Your task to perform on an android device: Add corsair k70 to the cart on walmart Image 0: 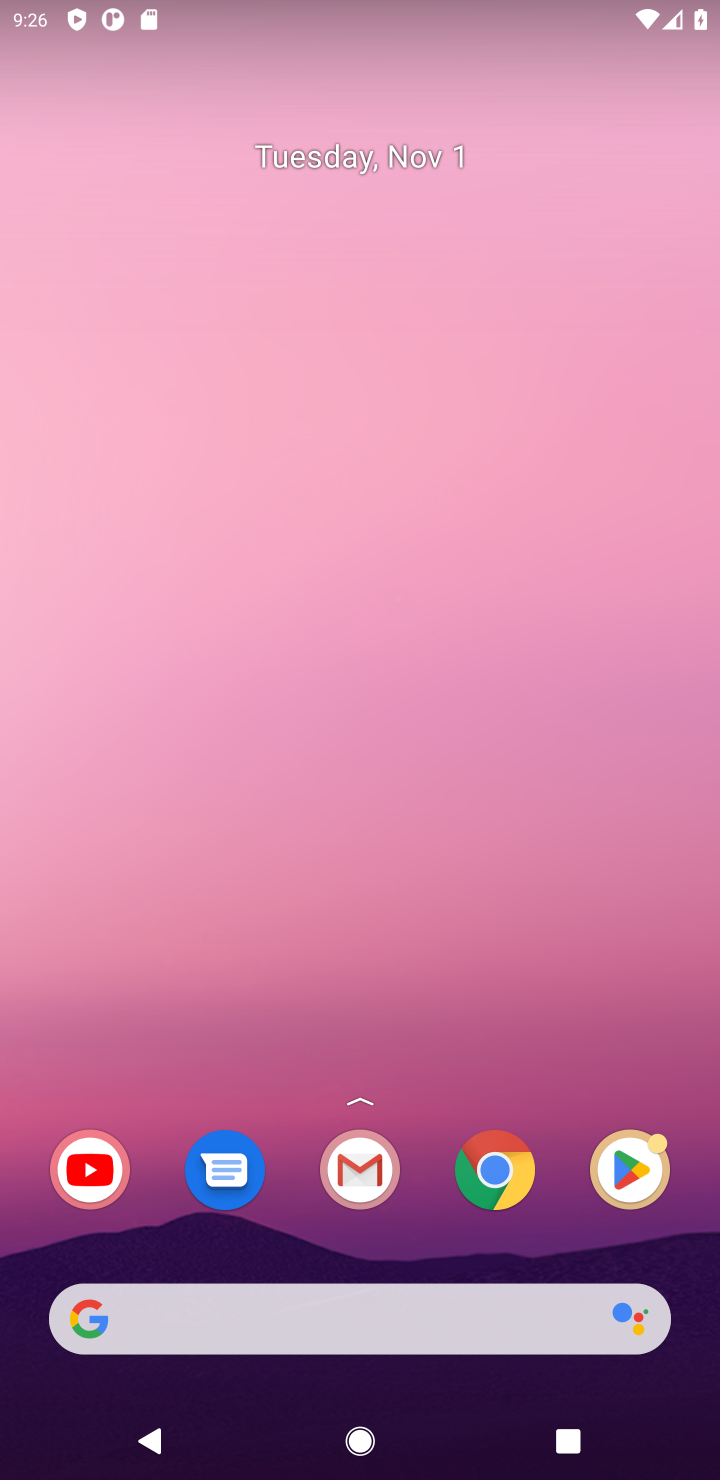
Step 0: press home button
Your task to perform on an android device: Add corsair k70 to the cart on walmart Image 1: 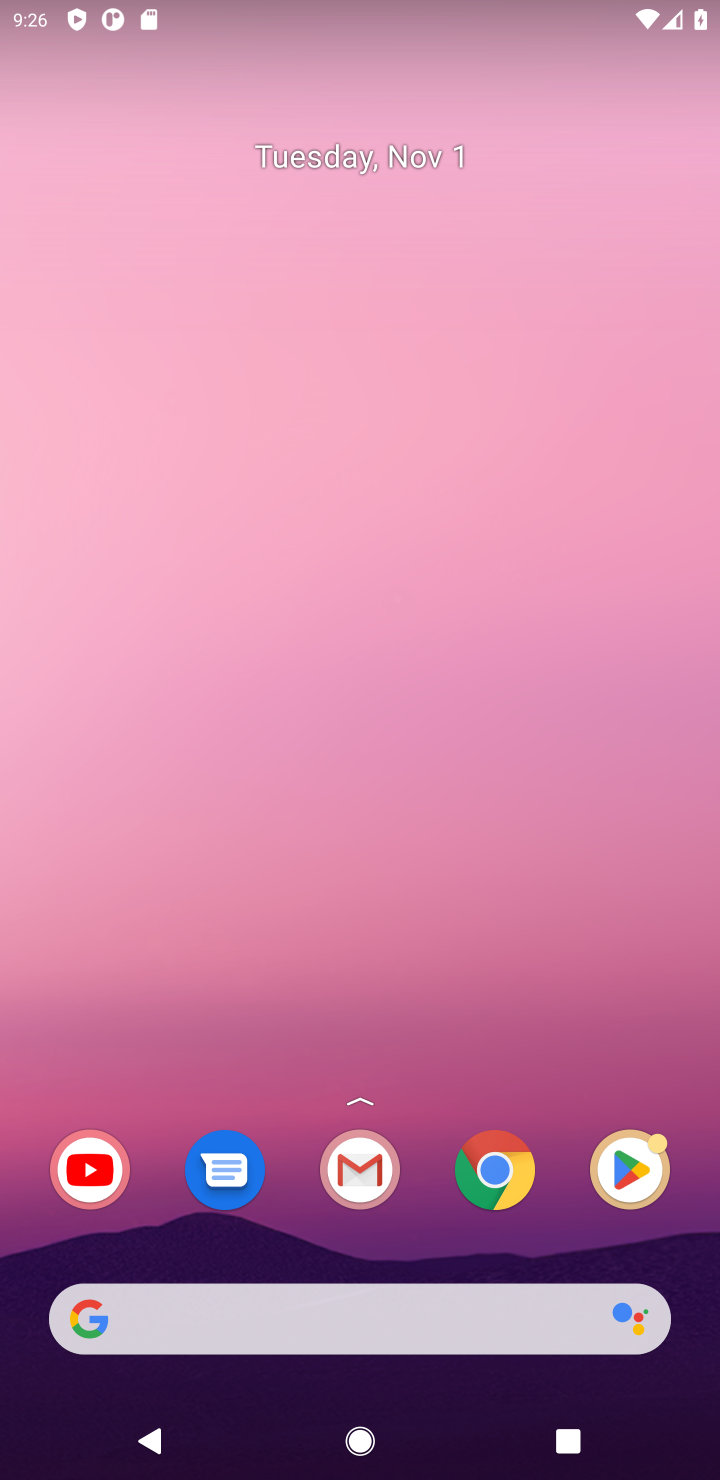
Step 1: drag from (414, 1105) to (484, 123)
Your task to perform on an android device: Add corsair k70 to the cart on walmart Image 2: 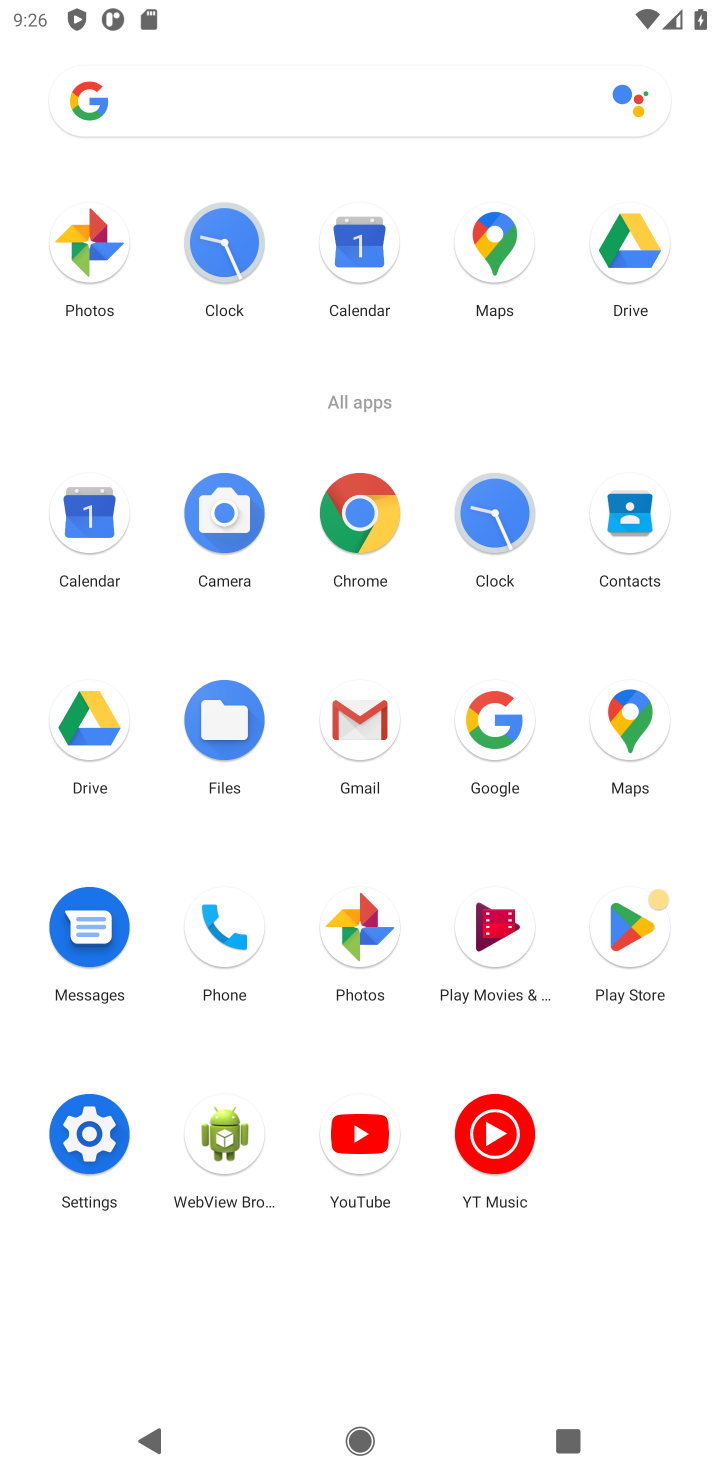
Step 2: click (356, 506)
Your task to perform on an android device: Add corsair k70 to the cart on walmart Image 3: 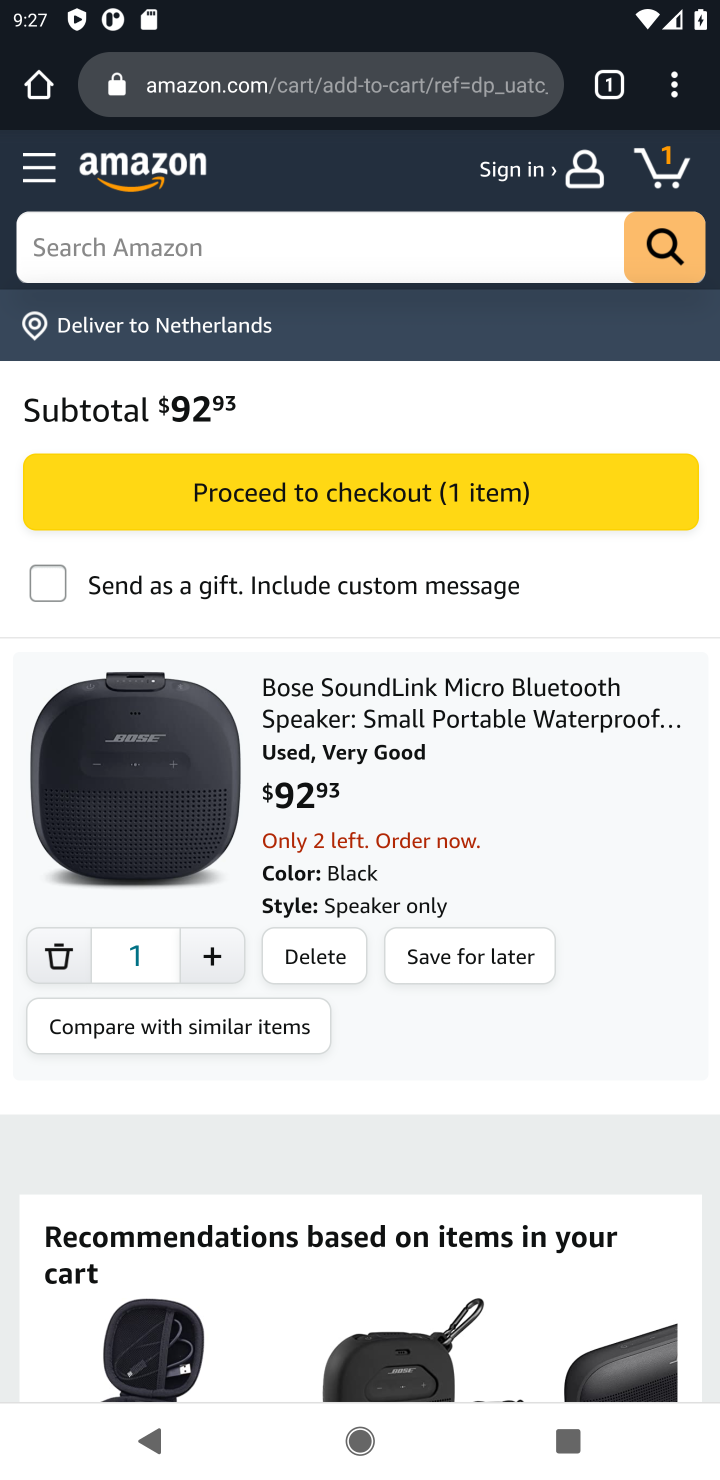
Step 3: click (237, 83)
Your task to perform on an android device: Add corsair k70 to the cart on walmart Image 4: 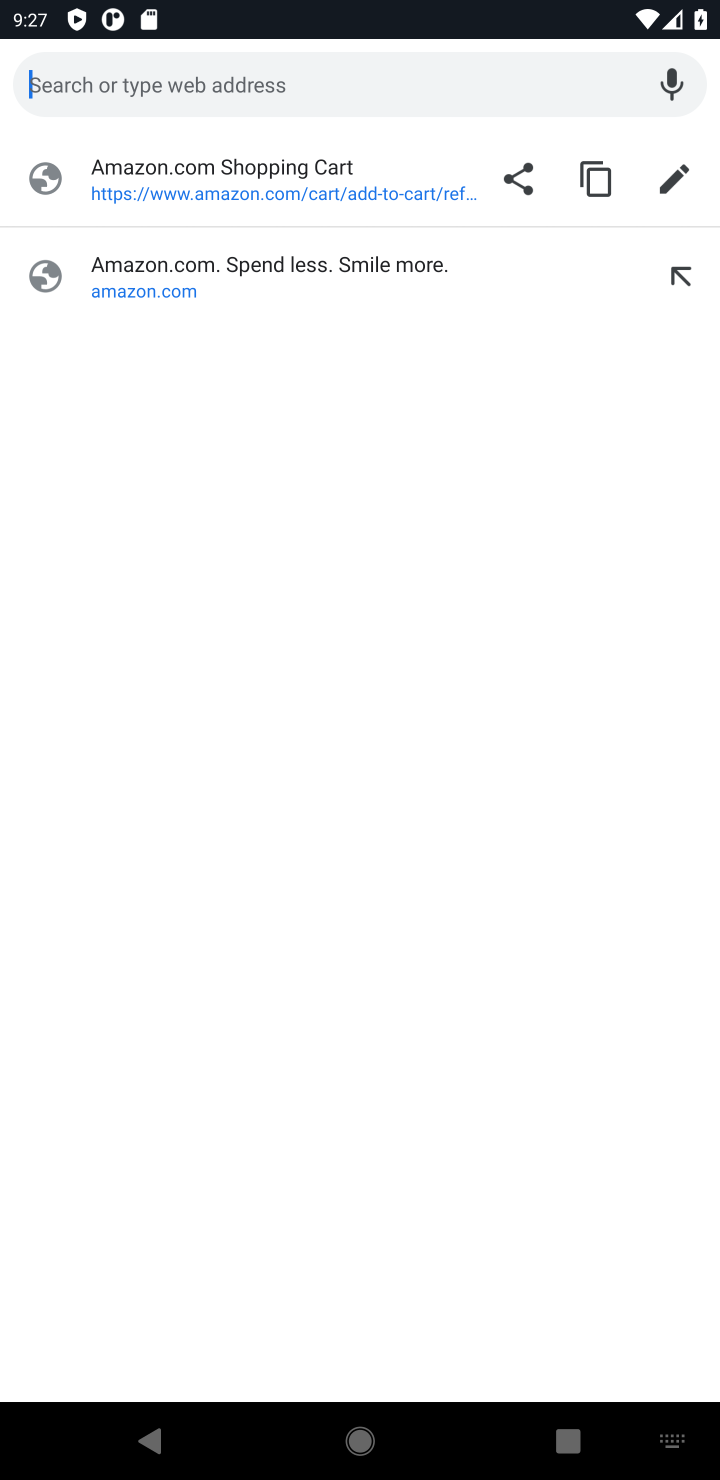
Step 4: type "walmart"
Your task to perform on an android device: Add corsair k70 to the cart on walmart Image 5: 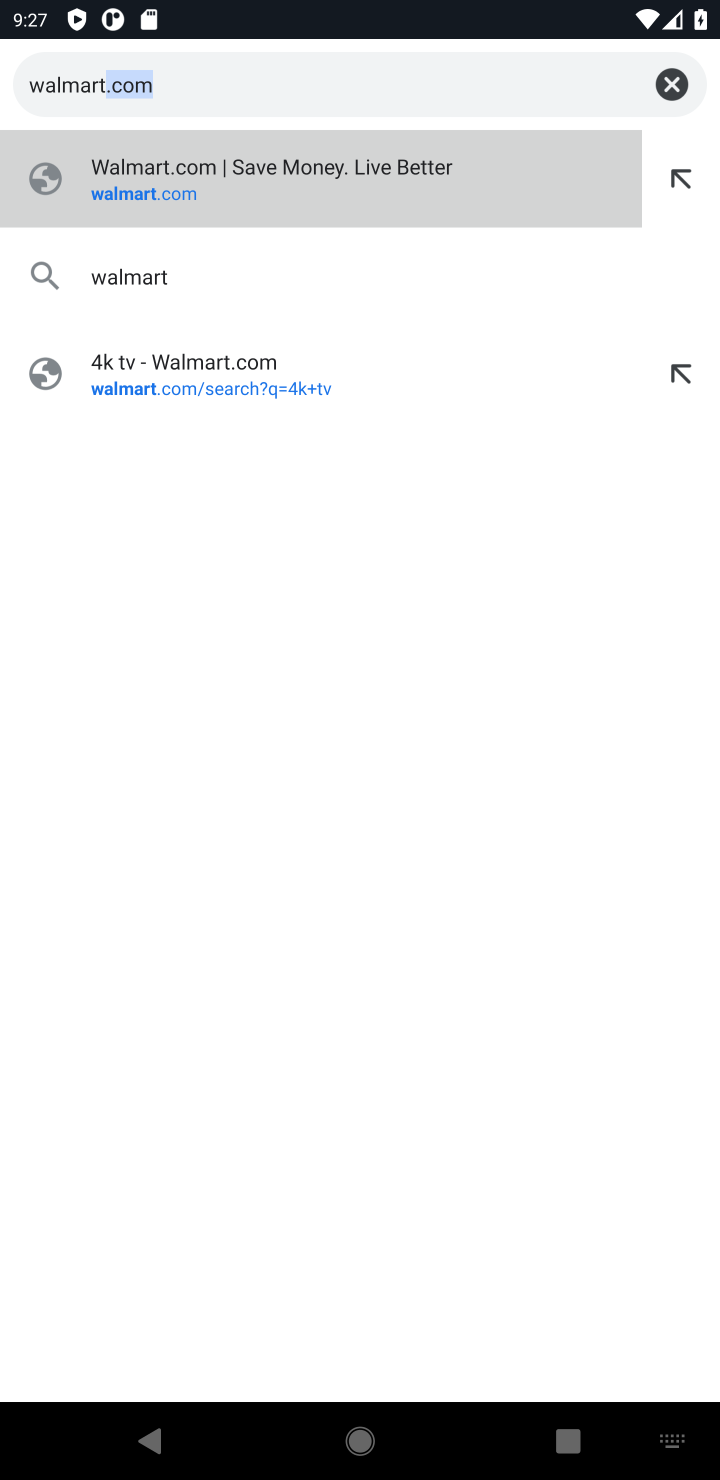
Step 5: click (222, 185)
Your task to perform on an android device: Add corsair k70 to the cart on walmart Image 6: 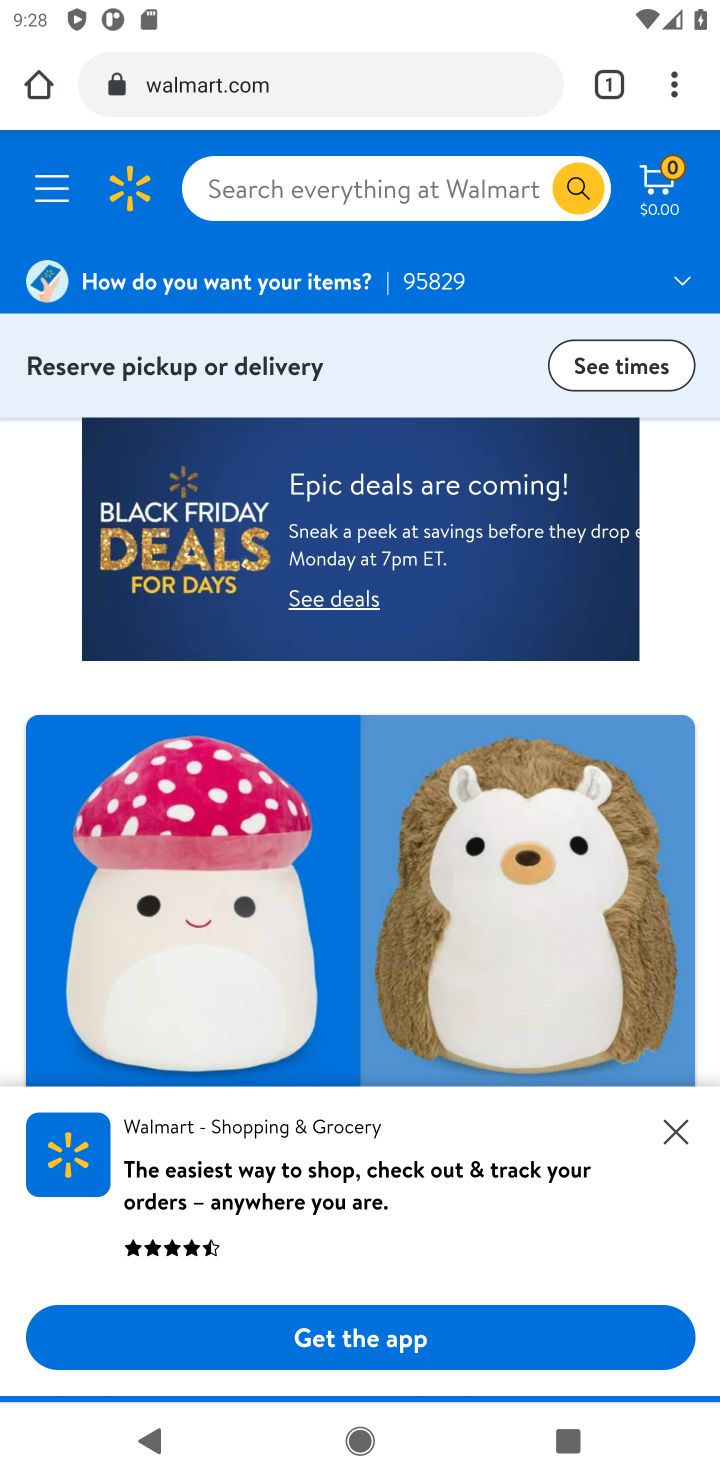
Step 6: click (672, 1126)
Your task to perform on an android device: Add corsair k70 to the cart on walmart Image 7: 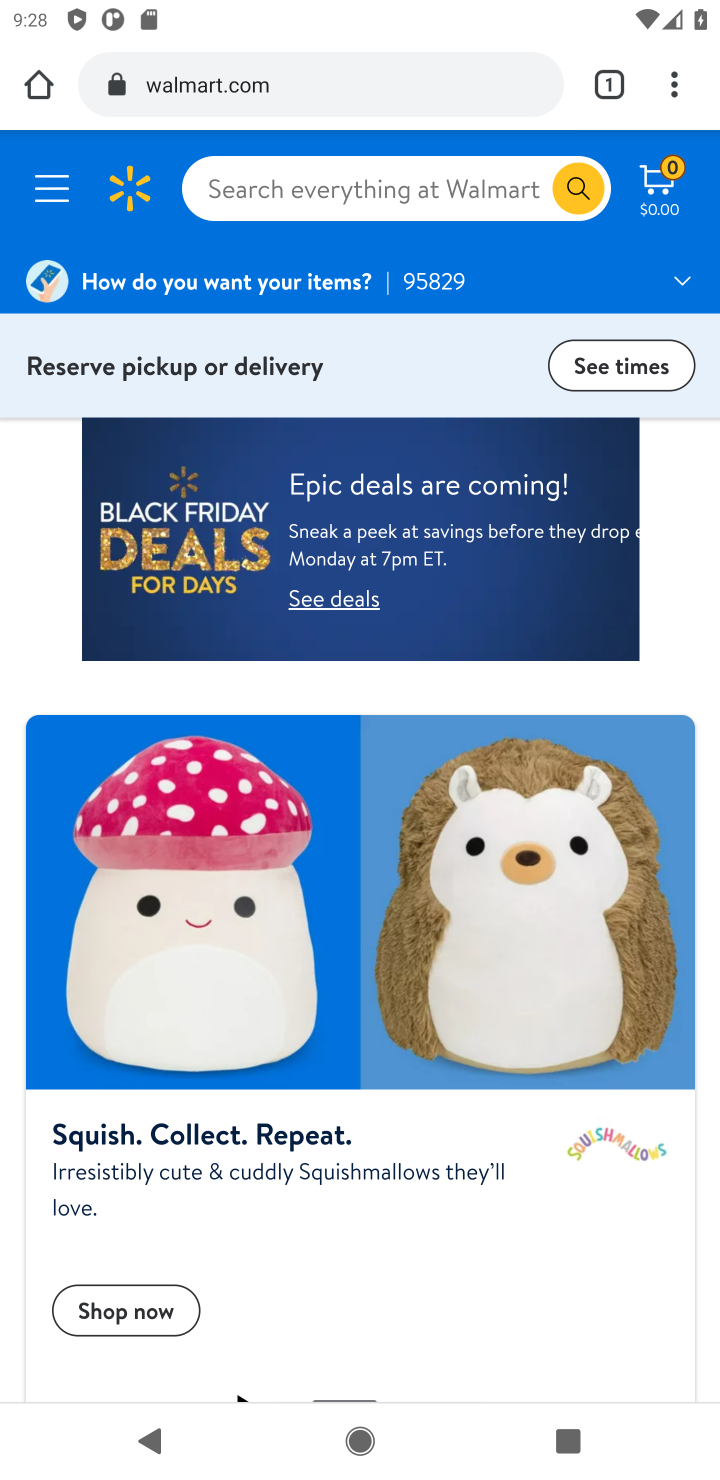
Step 7: click (289, 175)
Your task to perform on an android device: Add corsair k70 to the cart on walmart Image 8: 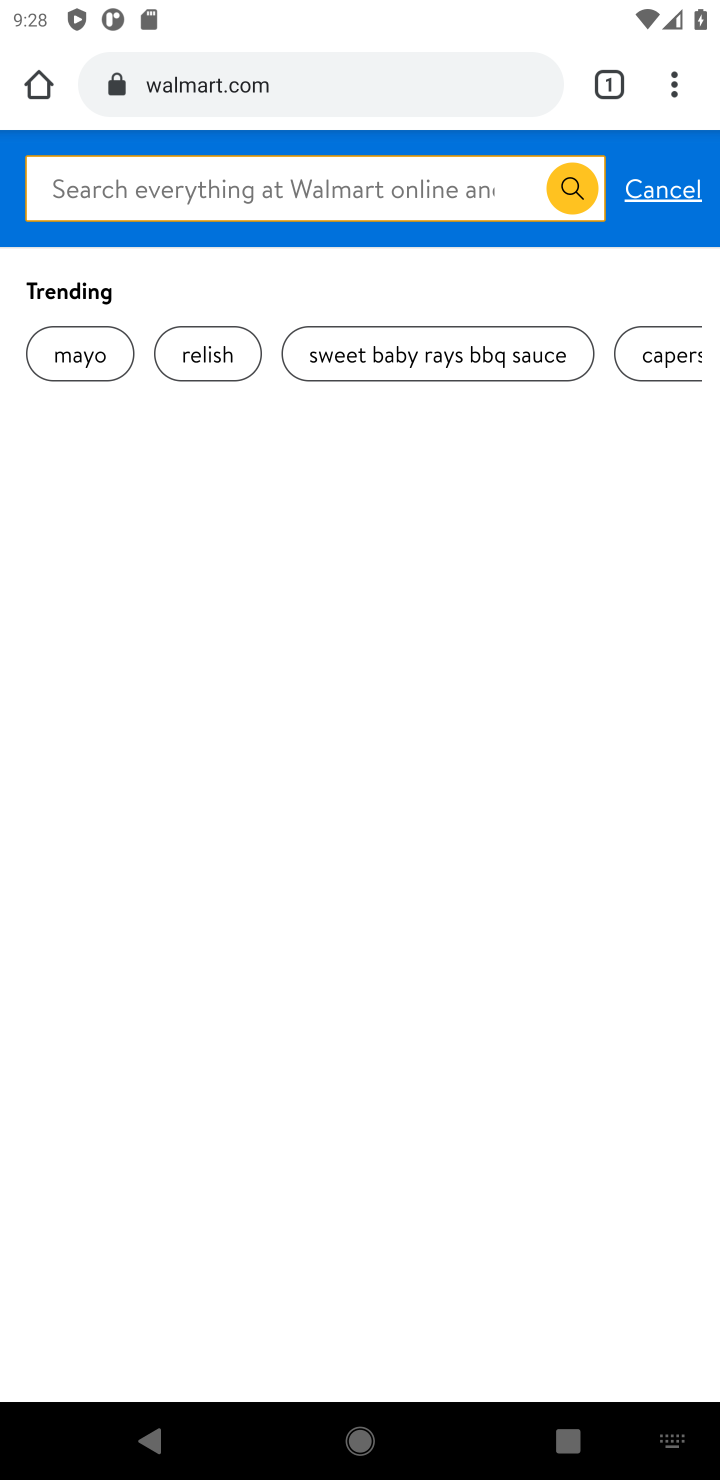
Step 8: type "corsair k70"
Your task to perform on an android device: Add corsair k70 to the cart on walmart Image 9: 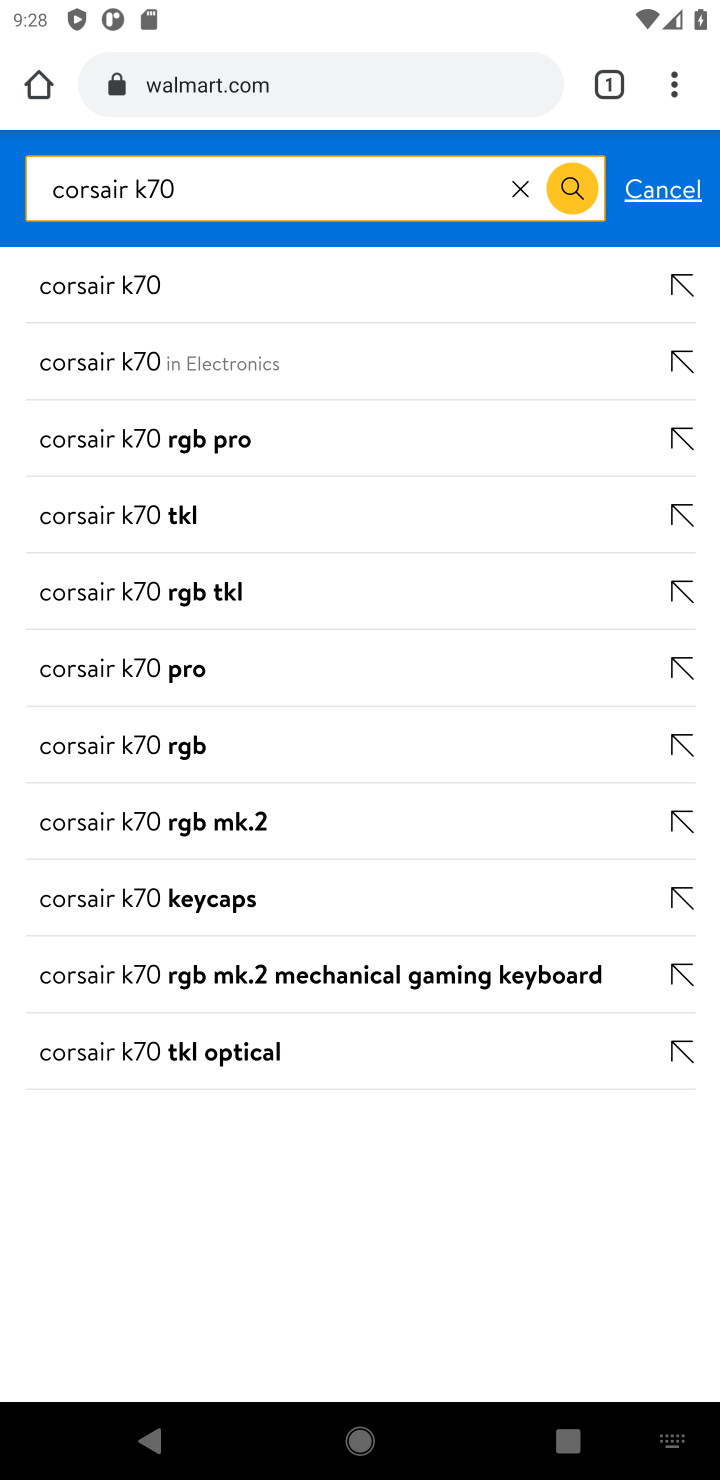
Step 9: click (225, 357)
Your task to perform on an android device: Add corsair k70 to the cart on walmart Image 10: 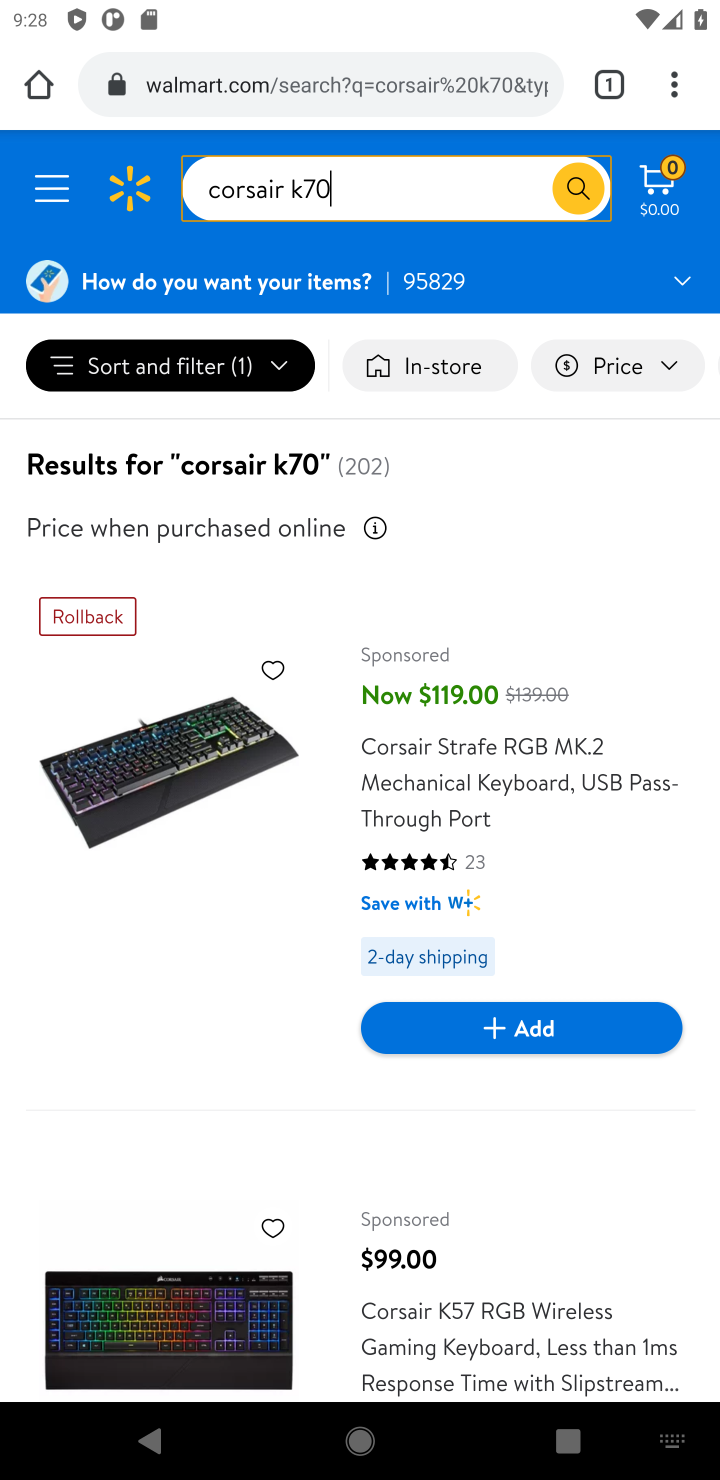
Step 10: drag from (333, 1193) to (368, 466)
Your task to perform on an android device: Add corsair k70 to the cart on walmart Image 11: 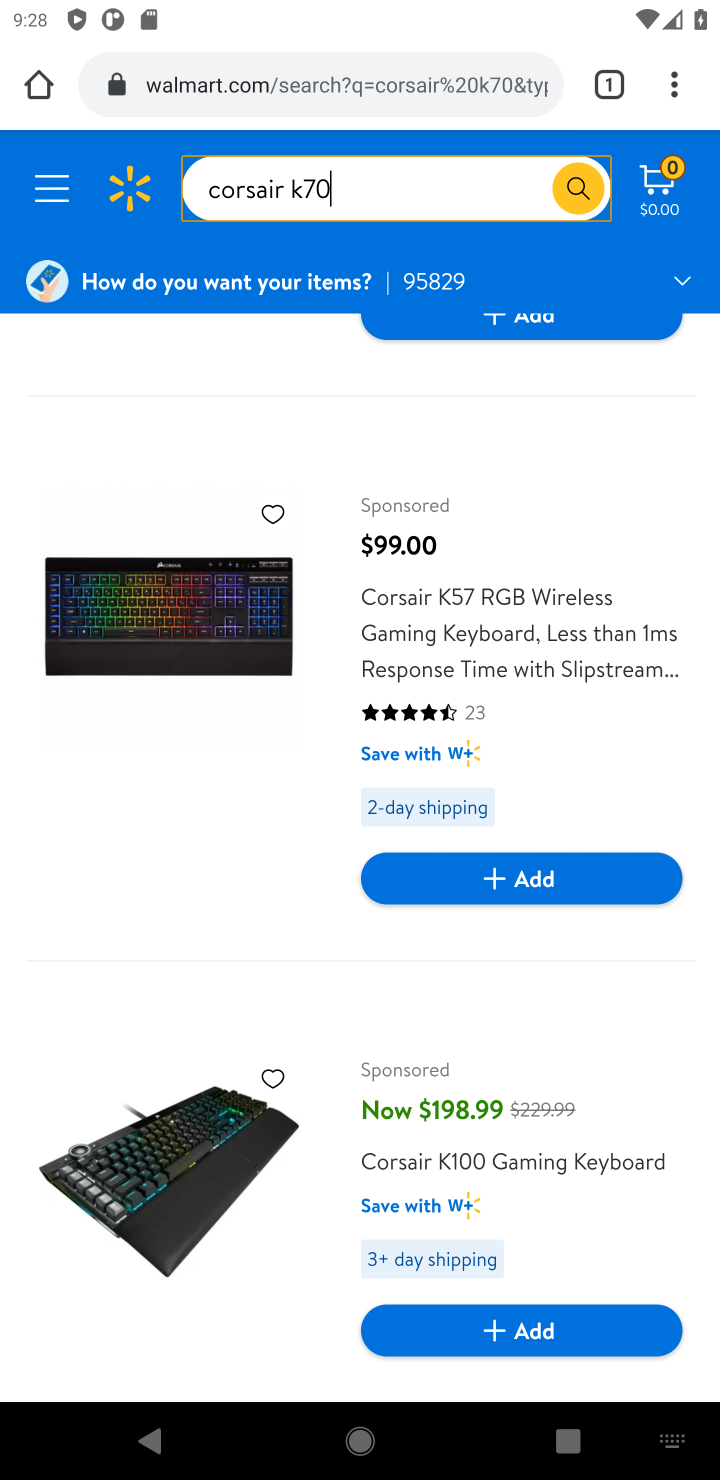
Step 11: click (437, 604)
Your task to perform on an android device: Add corsair k70 to the cart on walmart Image 12: 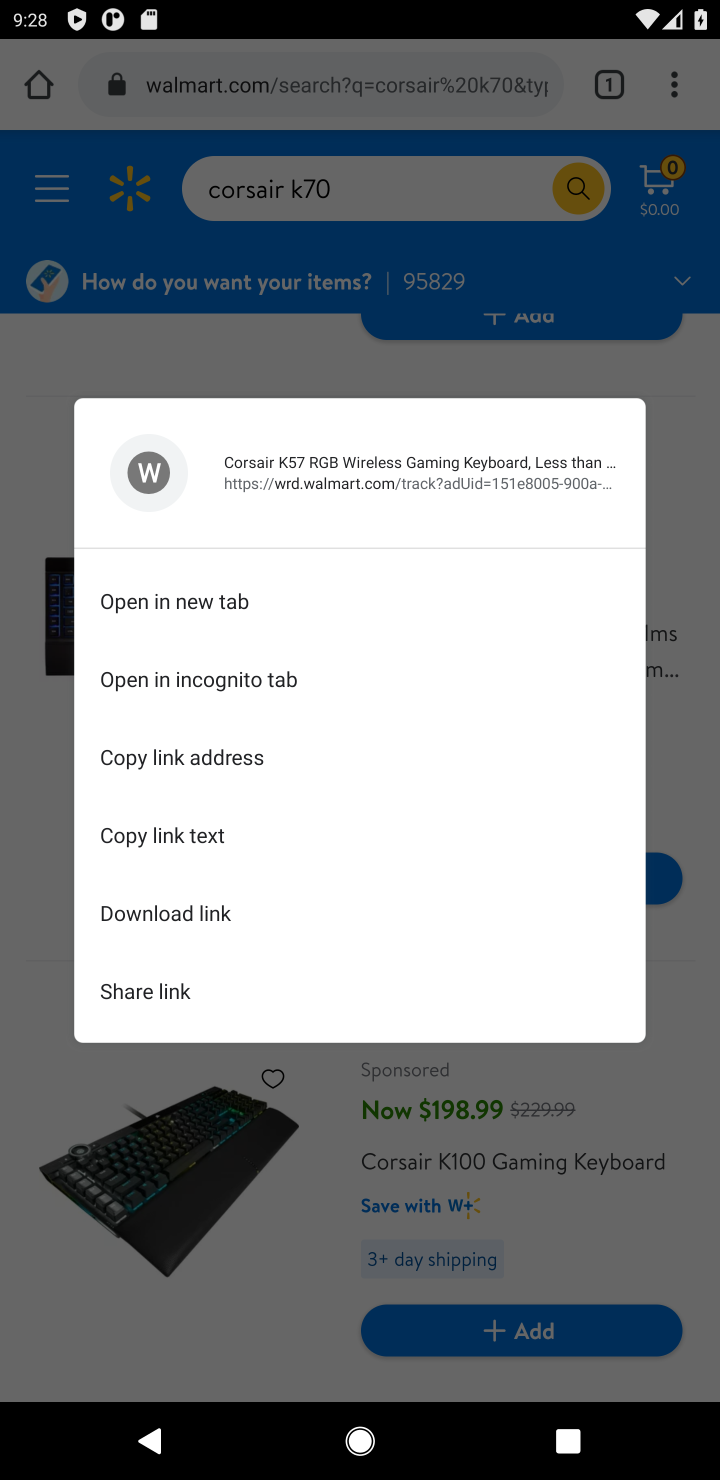
Step 12: click (107, 1292)
Your task to perform on an android device: Add corsair k70 to the cart on walmart Image 13: 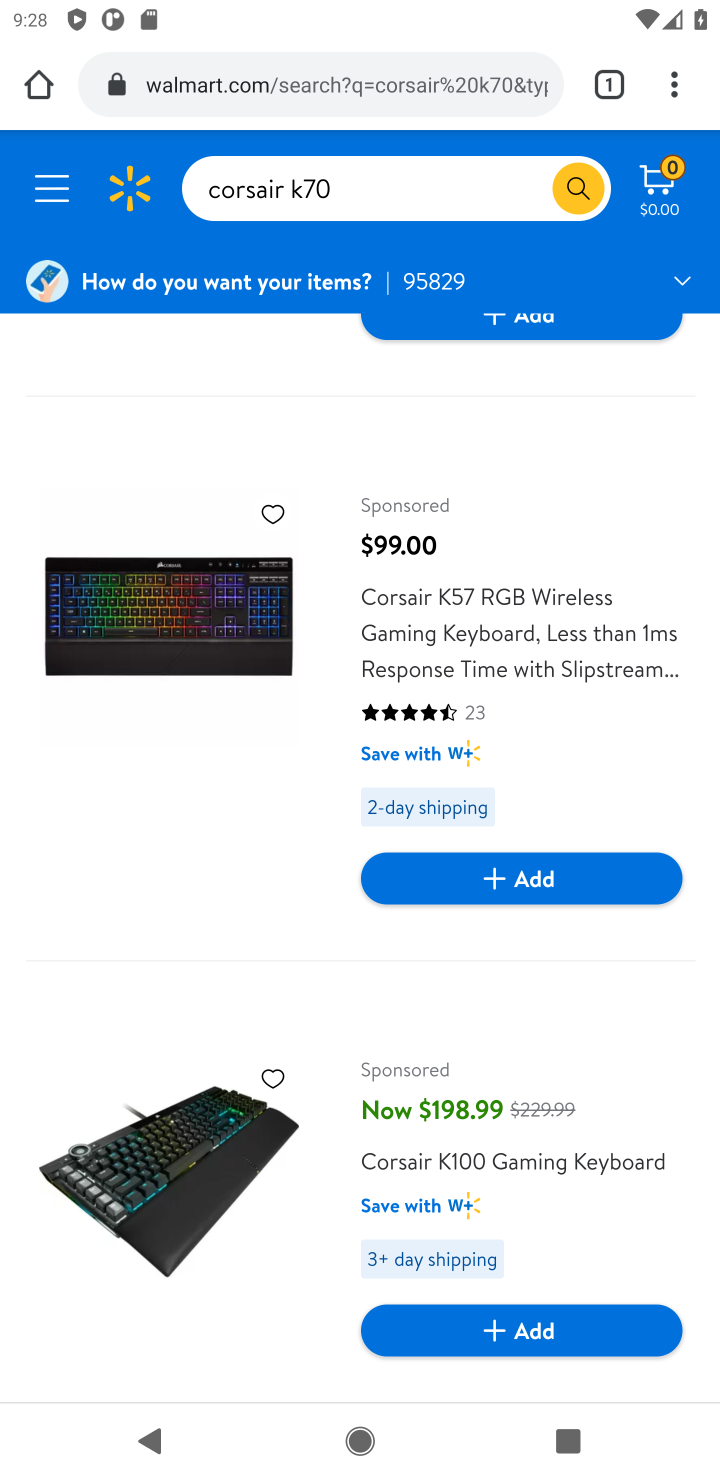
Step 13: click (425, 592)
Your task to perform on an android device: Add corsair k70 to the cart on walmart Image 14: 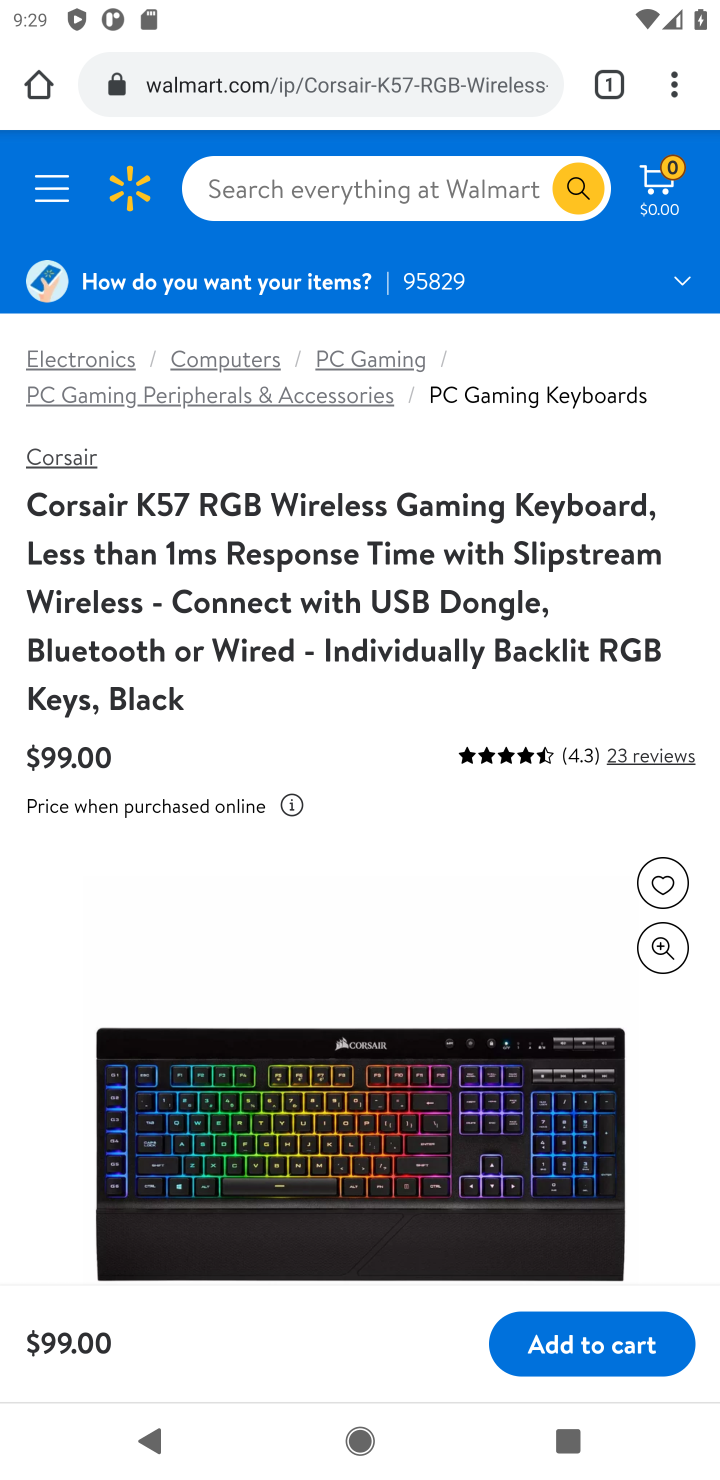
Step 14: click (611, 1349)
Your task to perform on an android device: Add corsair k70 to the cart on walmart Image 15: 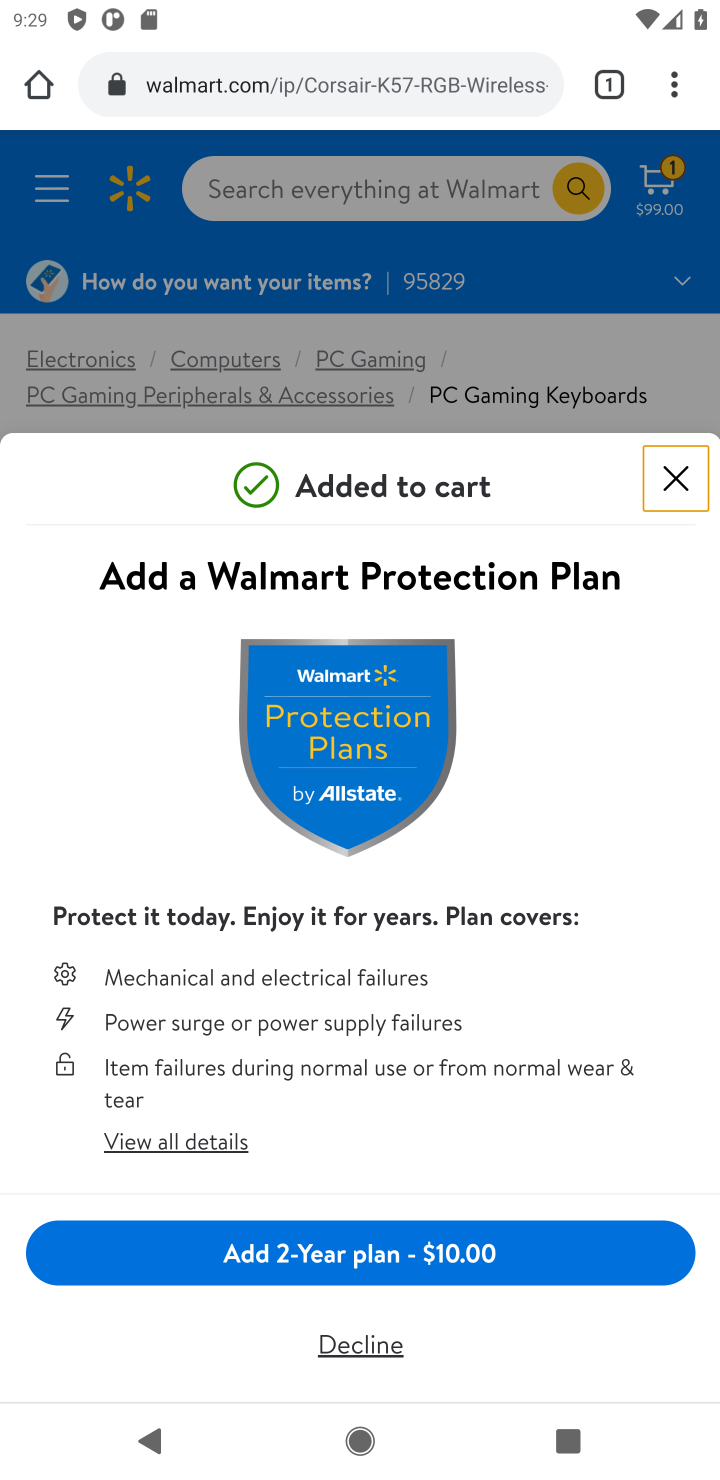
Step 15: click (667, 479)
Your task to perform on an android device: Add corsair k70 to the cart on walmart Image 16: 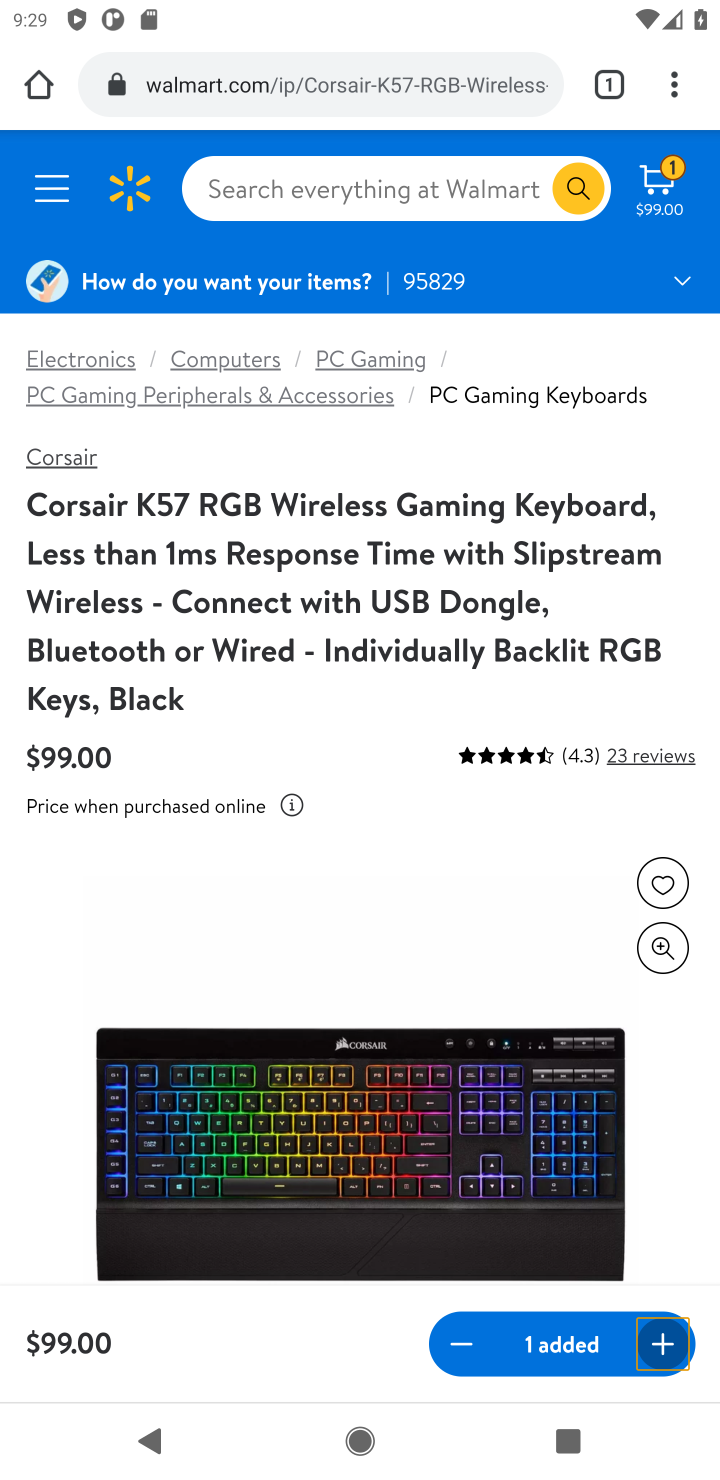
Step 16: drag from (314, 975) to (311, 278)
Your task to perform on an android device: Add corsair k70 to the cart on walmart Image 17: 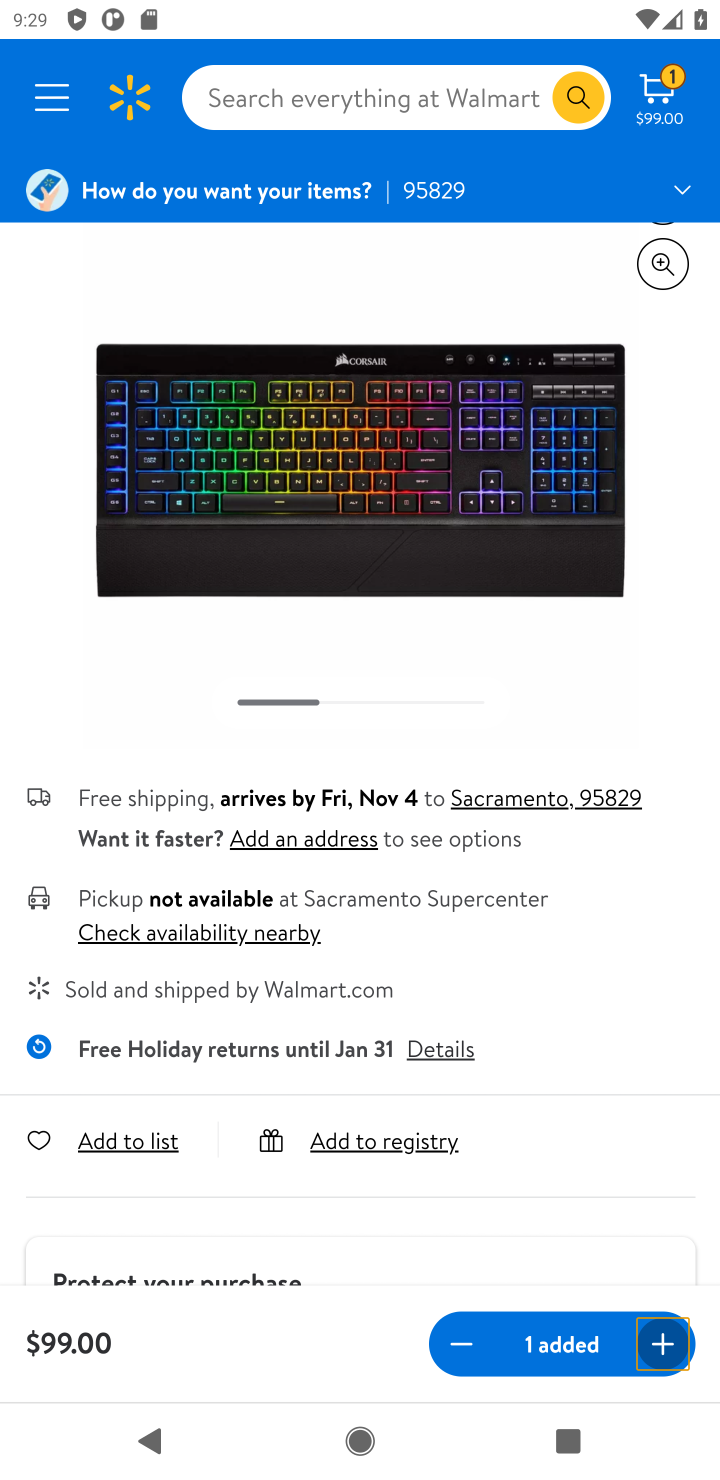
Step 17: click (664, 87)
Your task to perform on an android device: Add corsair k70 to the cart on walmart Image 18: 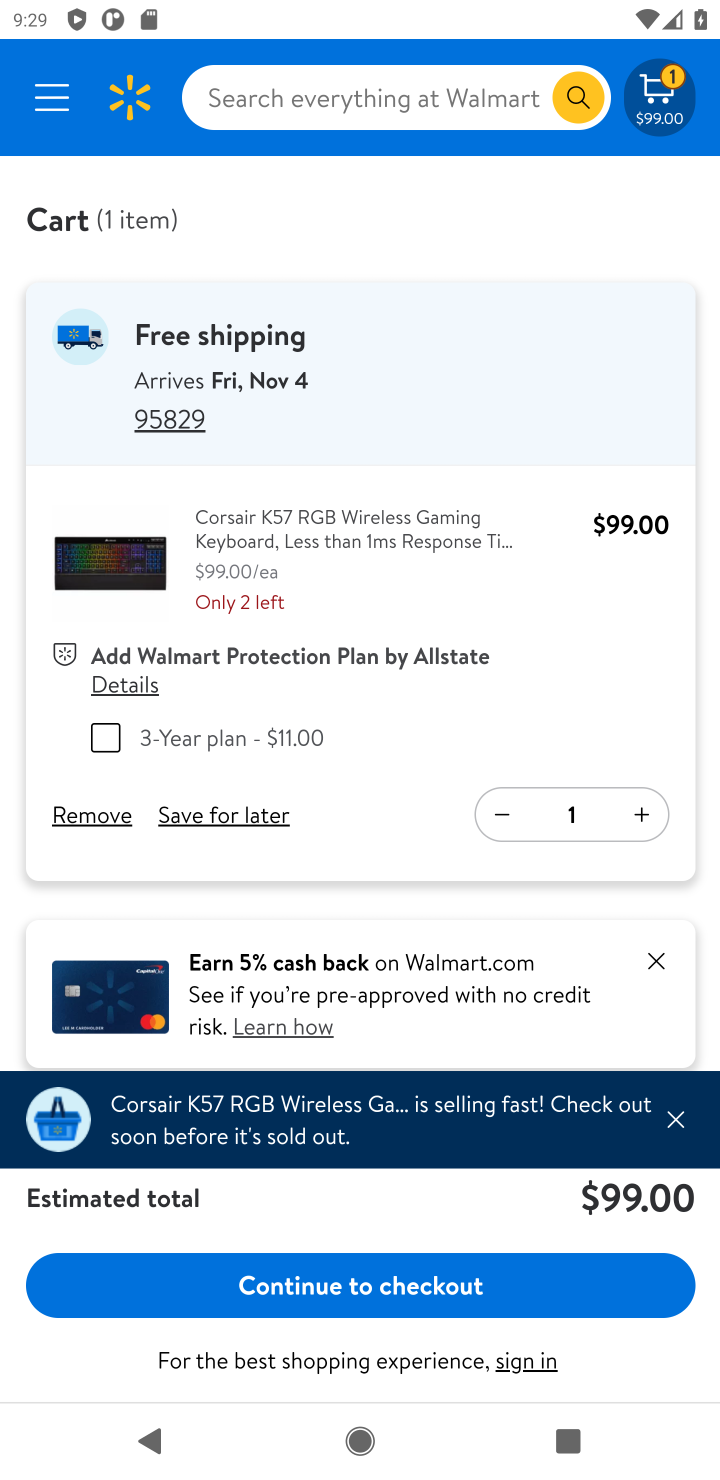
Step 18: task complete